Your task to perform on an android device: turn on translation in the chrome app Image 0: 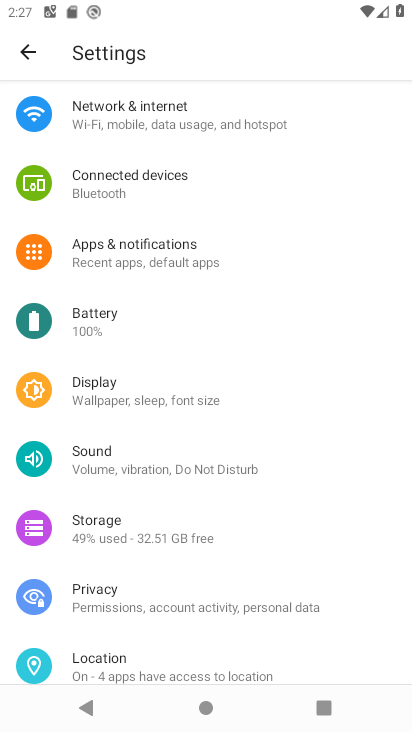
Step 0: press home button
Your task to perform on an android device: turn on translation in the chrome app Image 1: 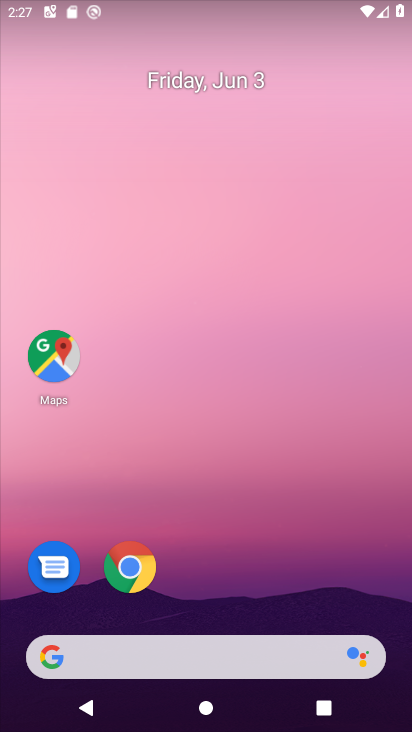
Step 1: drag from (280, 621) to (197, 197)
Your task to perform on an android device: turn on translation in the chrome app Image 2: 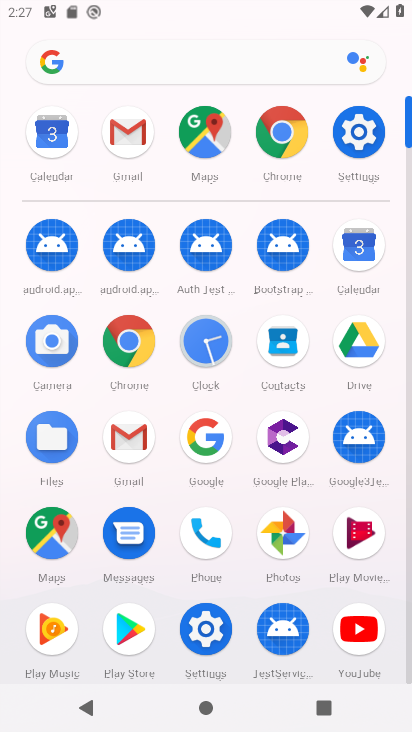
Step 2: click (299, 98)
Your task to perform on an android device: turn on translation in the chrome app Image 3: 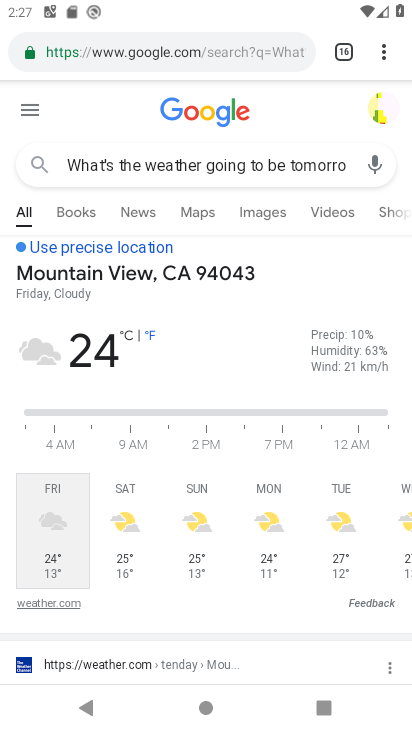
Step 3: click (373, 50)
Your task to perform on an android device: turn on translation in the chrome app Image 4: 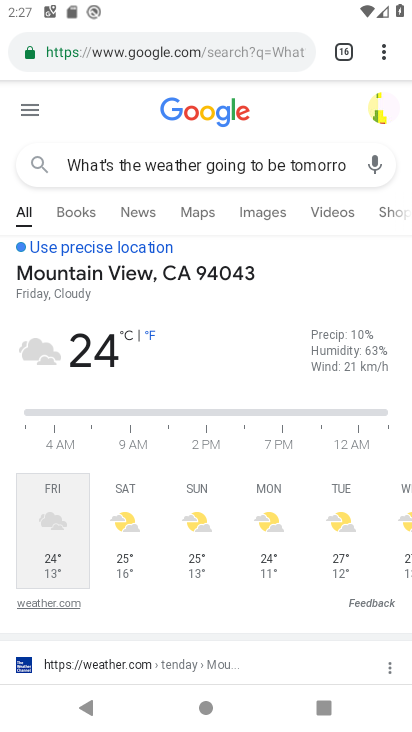
Step 4: click (389, 51)
Your task to perform on an android device: turn on translation in the chrome app Image 5: 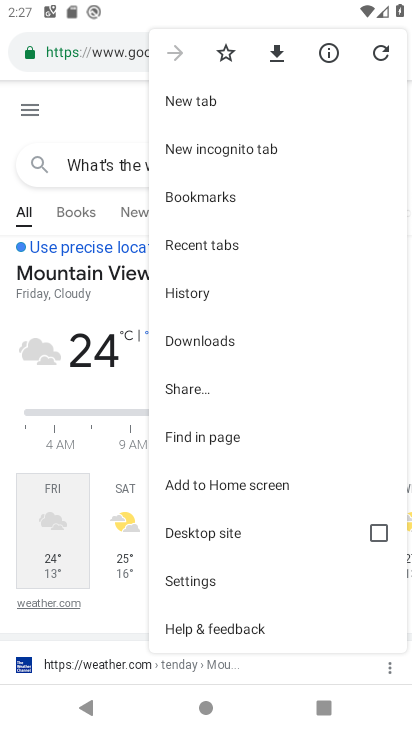
Step 5: click (201, 588)
Your task to perform on an android device: turn on translation in the chrome app Image 6: 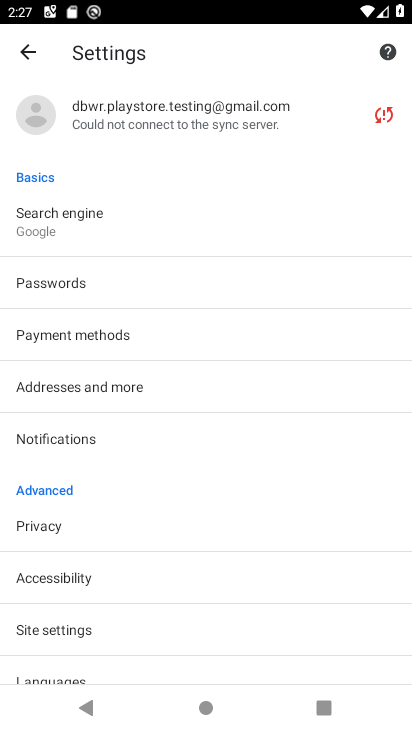
Step 6: drag from (149, 573) to (152, 242)
Your task to perform on an android device: turn on translation in the chrome app Image 7: 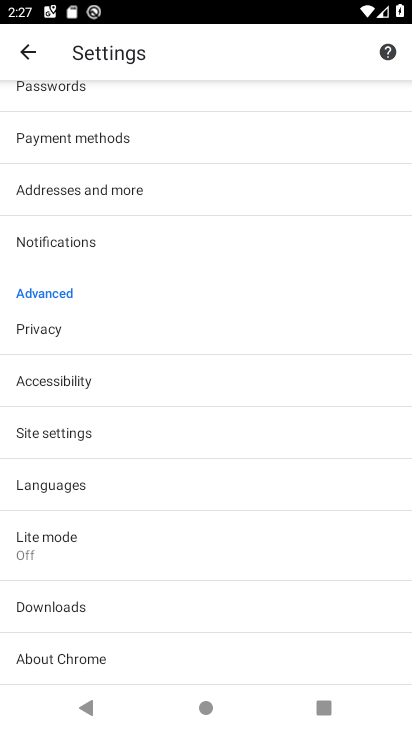
Step 7: click (78, 485)
Your task to perform on an android device: turn on translation in the chrome app Image 8: 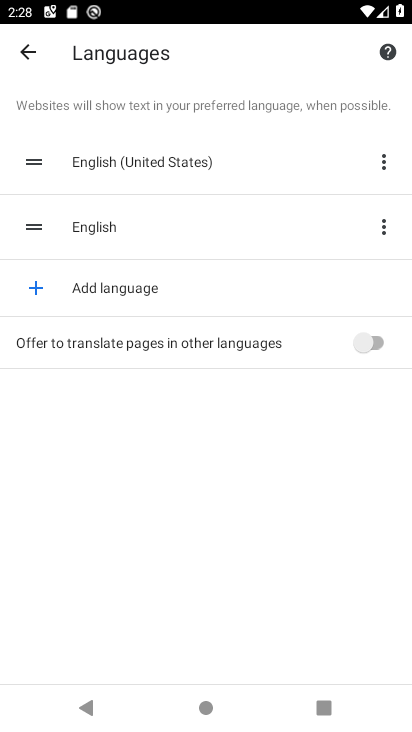
Step 8: click (364, 341)
Your task to perform on an android device: turn on translation in the chrome app Image 9: 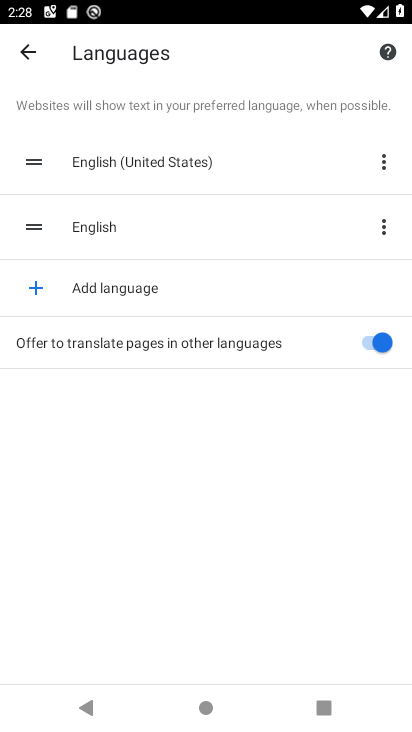
Step 9: task complete